Your task to perform on an android device: Turn off the flashlight Image 0: 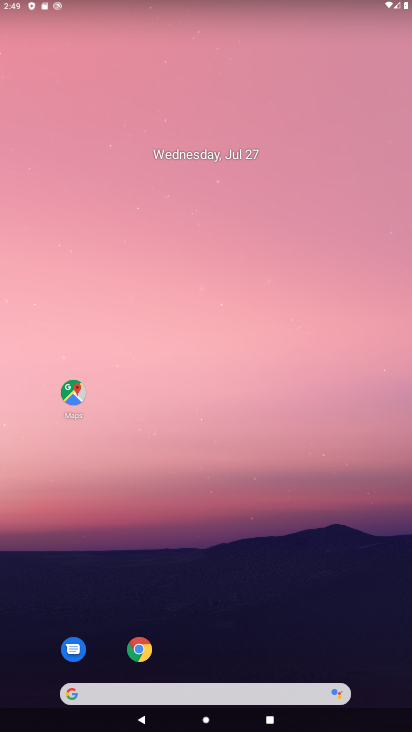
Step 0: drag from (209, 4) to (185, 412)
Your task to perform on an android device: Turn off the flashlight Image 1: 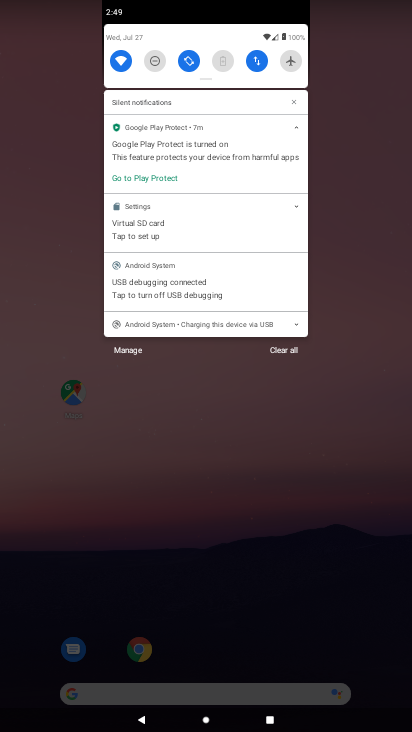
Step 1: task complete